Your task to perform on an android device: Go to ESPN.com Image 0: 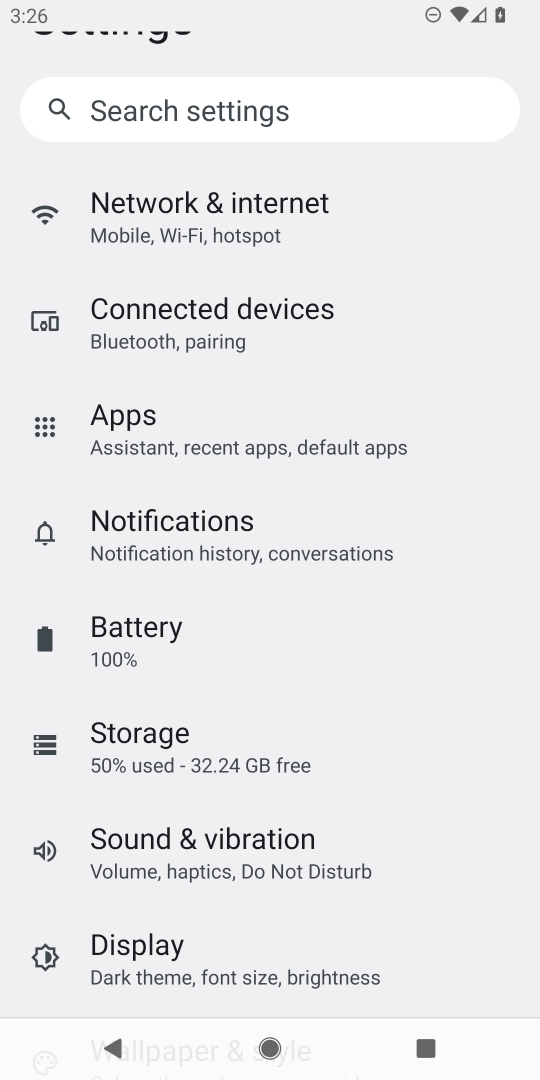
Step 0: press home button
Your task to perform on an android device: Go to ESPN.com Image 1: 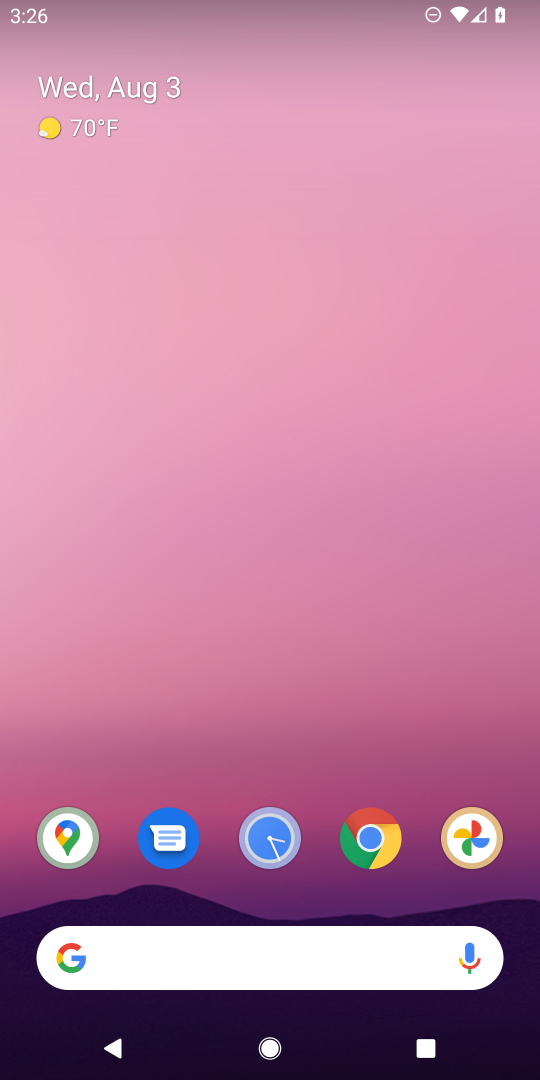
Step 1: click (356, 839)
Your task to perform on an android device: Go to ESPN.com Image 2: 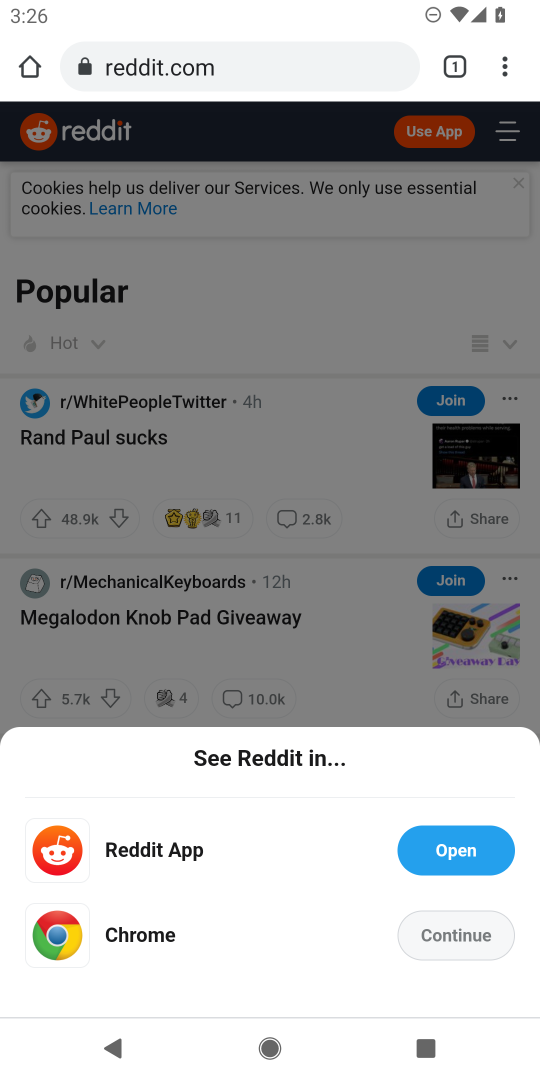
Step 2: click (224, 62)
Your task to perform on an android device: Go to ESPN.com Image 3: 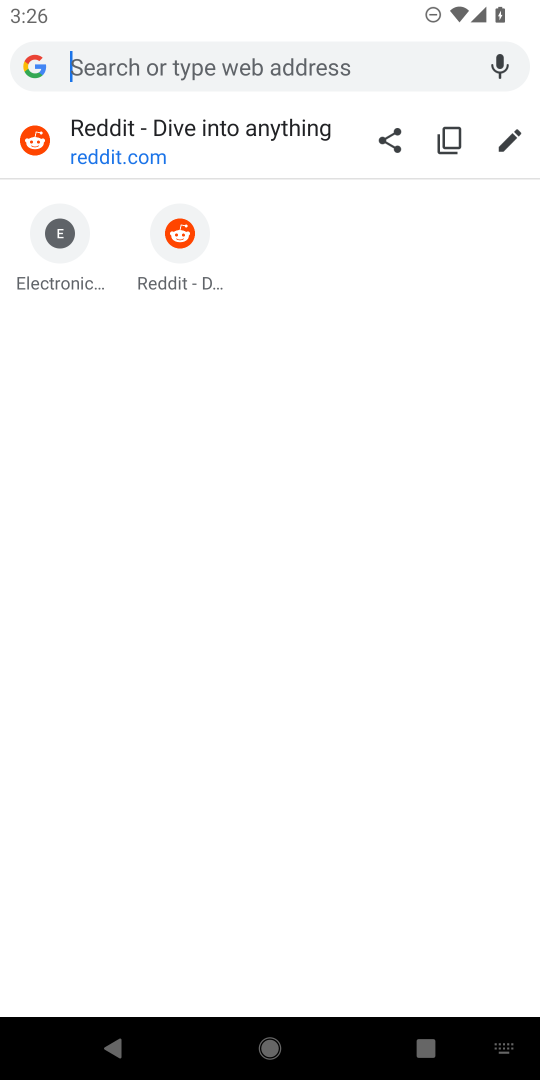
Step 3: type "ESPN.com"
Your task to perform on an android device: Go to ESPN.com Image 4: 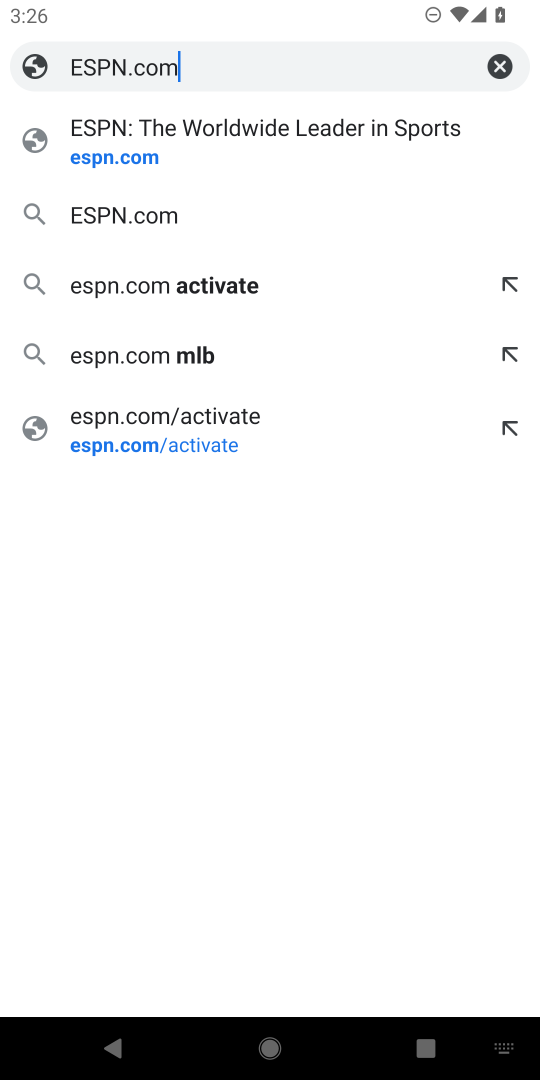
Step 4: click (224, 144)
Your task to perform on an android device: Go to ESPN.com Image 5: 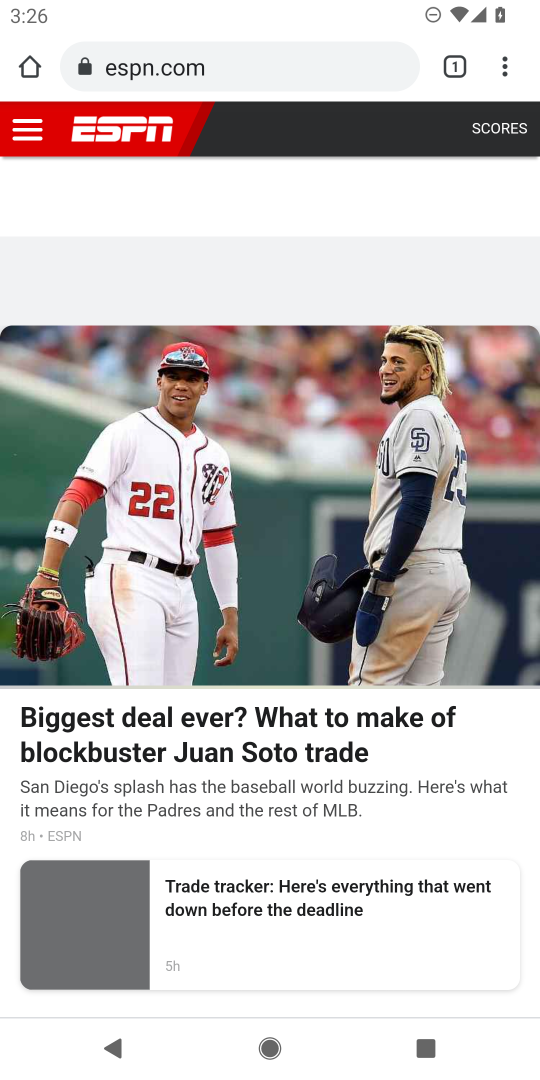
Step 5: task complete